Your task to perform on an android device: turn off notifications settings in the gmail app Image 0: 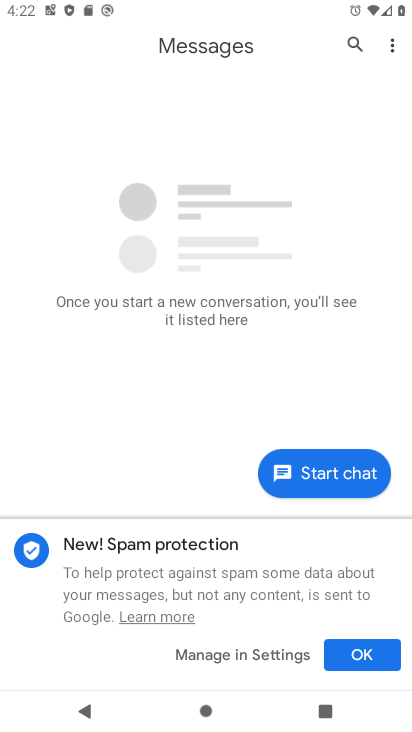
Step 0: press home button
Your task to perform on an android device: turn off notifications settings in the gmail app Image 1: 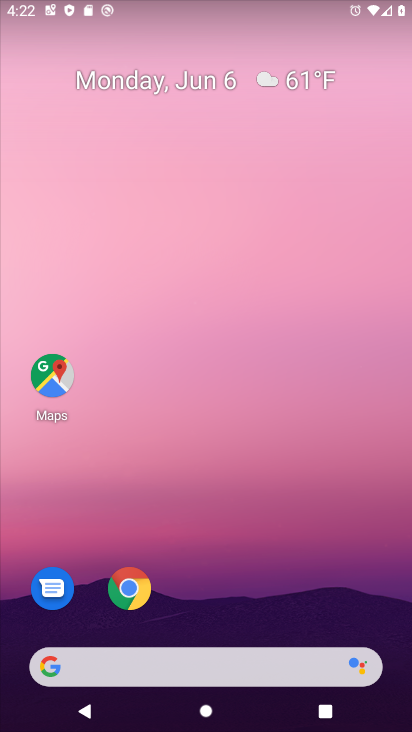
Step 1: drag from (235, 588) to (223, 109)
Your task to perform on an android device: turn off notifications settings in the gmail app Image 2: 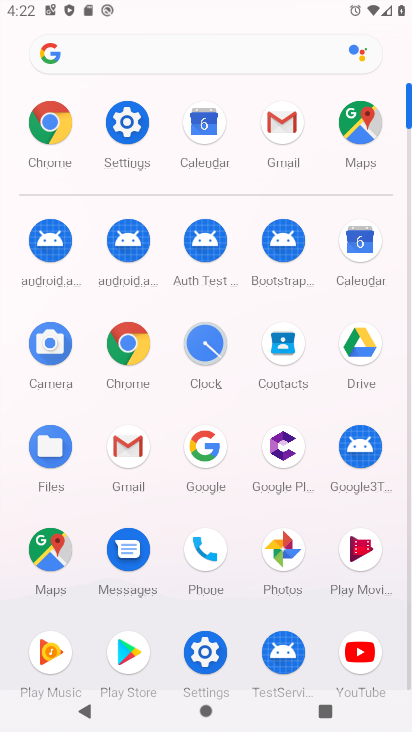
Step 2: click (283, 134)
Your task to perform on an android device: turn off notifications settings in the gmail app Image 3: 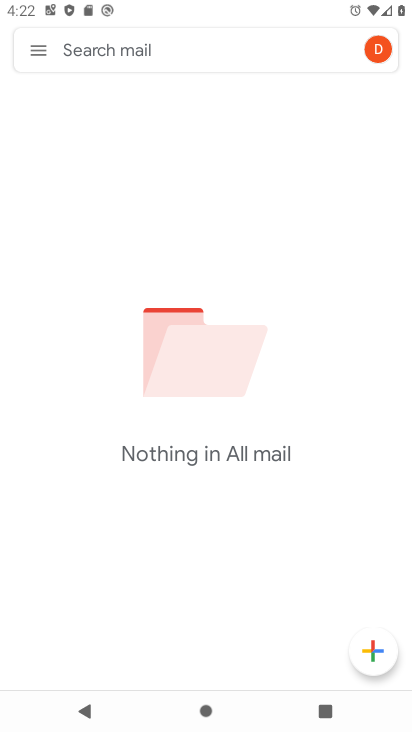
Step 3: click (41, 49)
Your task to perform on an android device: turn off notifications settings in the gmail app Image 4: 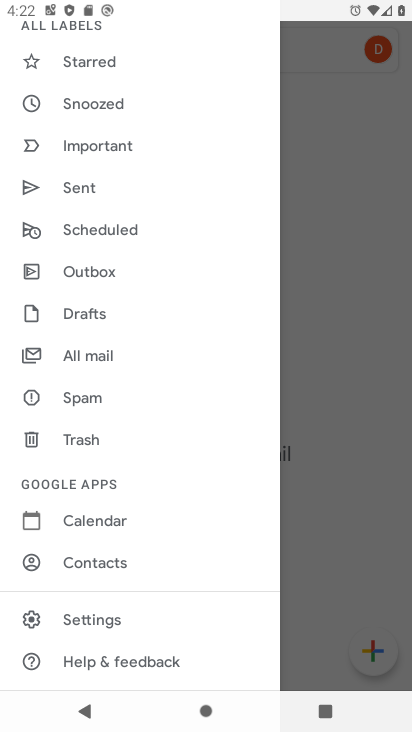
Step 4: drag from (146, 115) to (148, 187)
Your task to perform on an android device: turn off notifications settings in the gmail app Image 5: 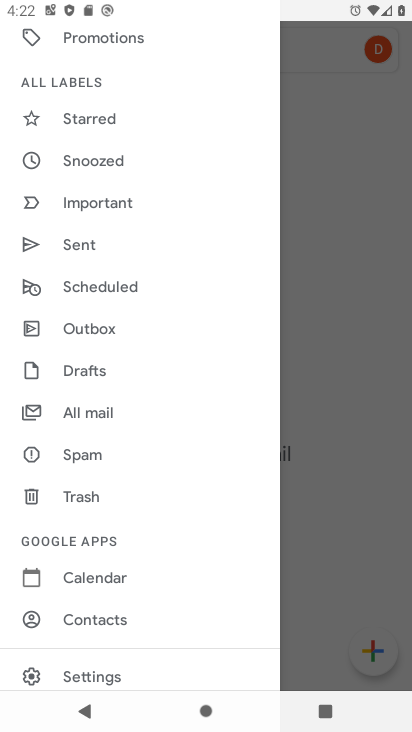
Step 5: click (106, 681)
Your task to perform on an android device: turn off notifications settings in the gmail app Image 6: 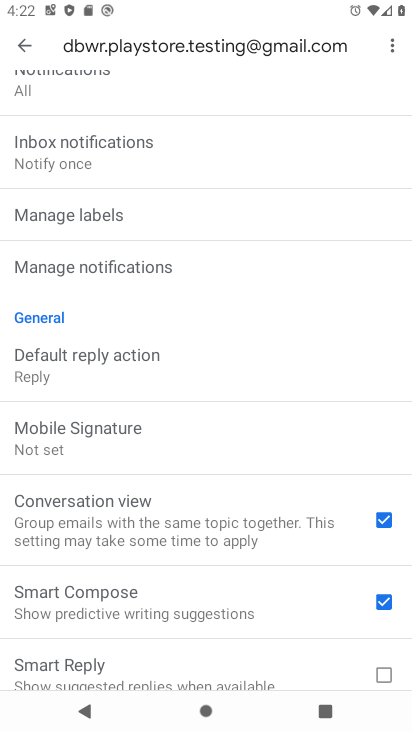
Step 6: click (221, 276)
Your task to perform on an android device: turn off notifications settings in the gmail app Image 7: 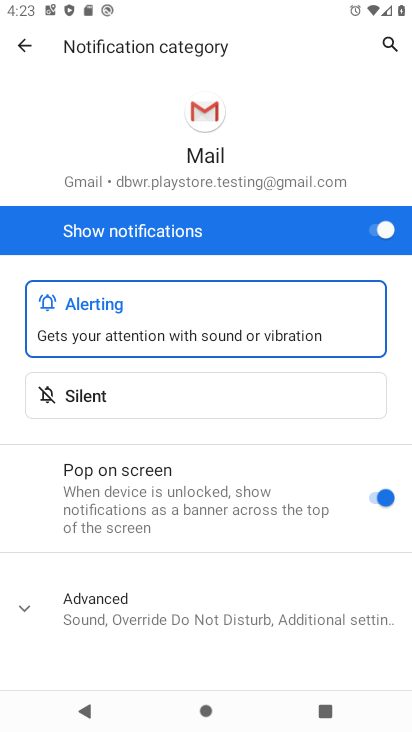
Step 7: click (368, 506)
Your task to perform on an android device: turn off notifications settings in the gmail app Image 8: 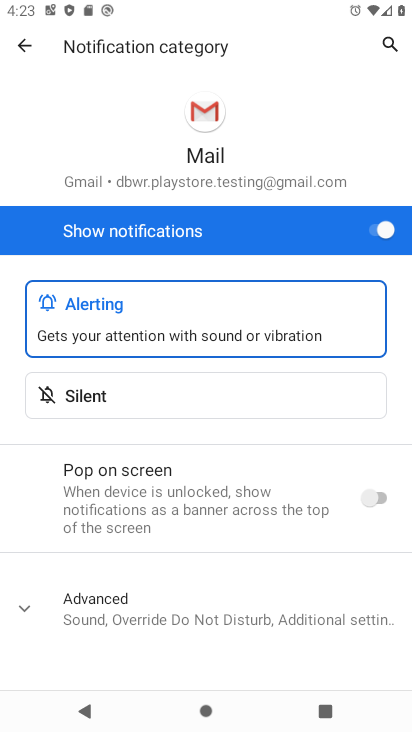
Step 8: task complete